Your task to perform on an android device: Open the calendar app, open the side menu, and click the "Day" option Image 0: 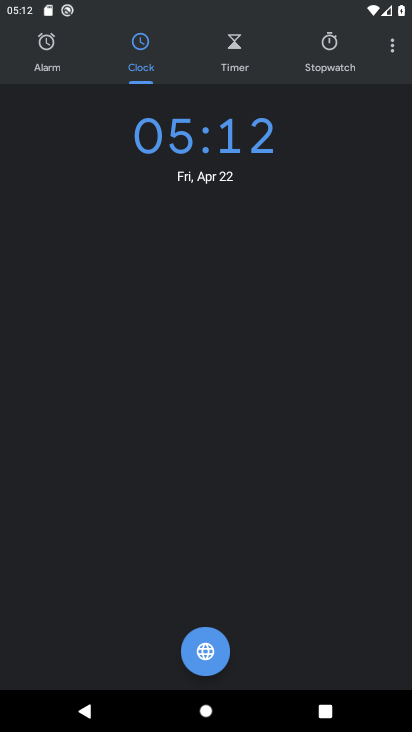
Step 0: press home button
Your task to perform on an android device: Open the calendar app, open the side menu, and click the "Day" option Image 1: 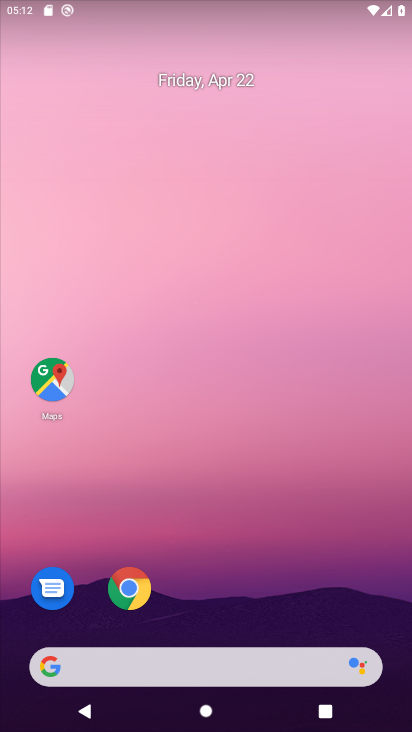
Step 1: drag from (260, 608) to (266, 63)
Your task to perform on an android device: Open the calendar app, open the side menu, and click the "Day" option Image 2: 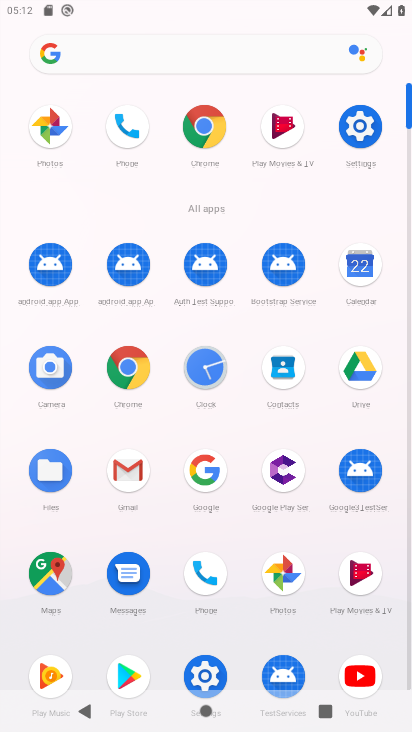
Step 2: click (361, 267)
Your task to perform on an android device: Open the calendar app, open the side menu, and click the "Day" option Image 3: 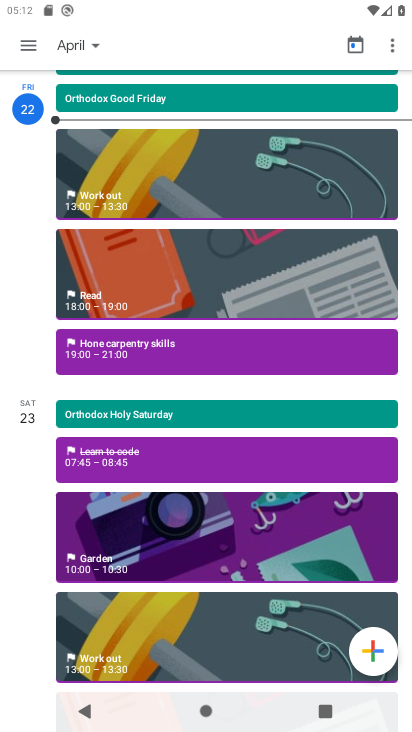
Step 3: click (26, 46)
Your task to perform on an android device: Open the calendar app, open the side menu, and click the "Day" option Image 4: 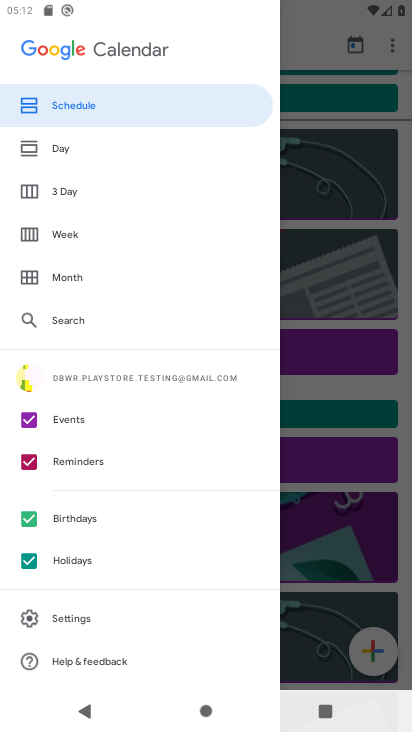
Step 4: click (61, 153)
Your task to perform on an android device: Open the calendar app, open the side menu, and click the "Day" option Image 5: 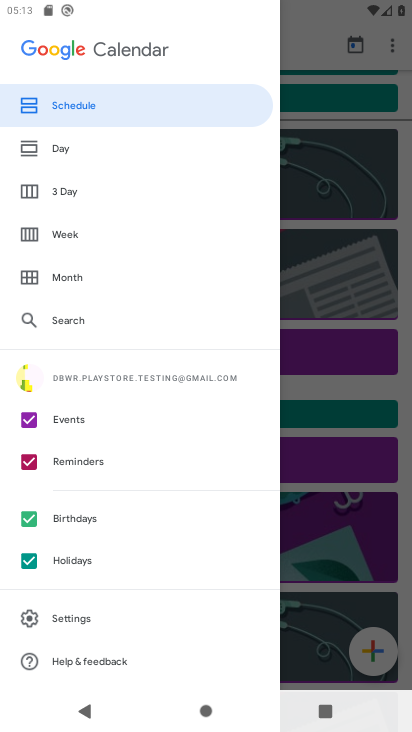
Step 5: click (61, 153)
Your task to perform on an android device: Open the calendar app, open the side menu, and click the "Day" option Image 6: 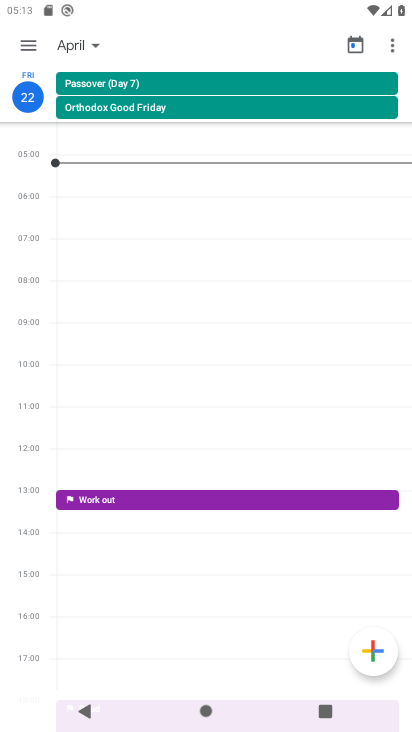
Step 6: task complete